Your task to perform on an android device: Open settings Image 0: 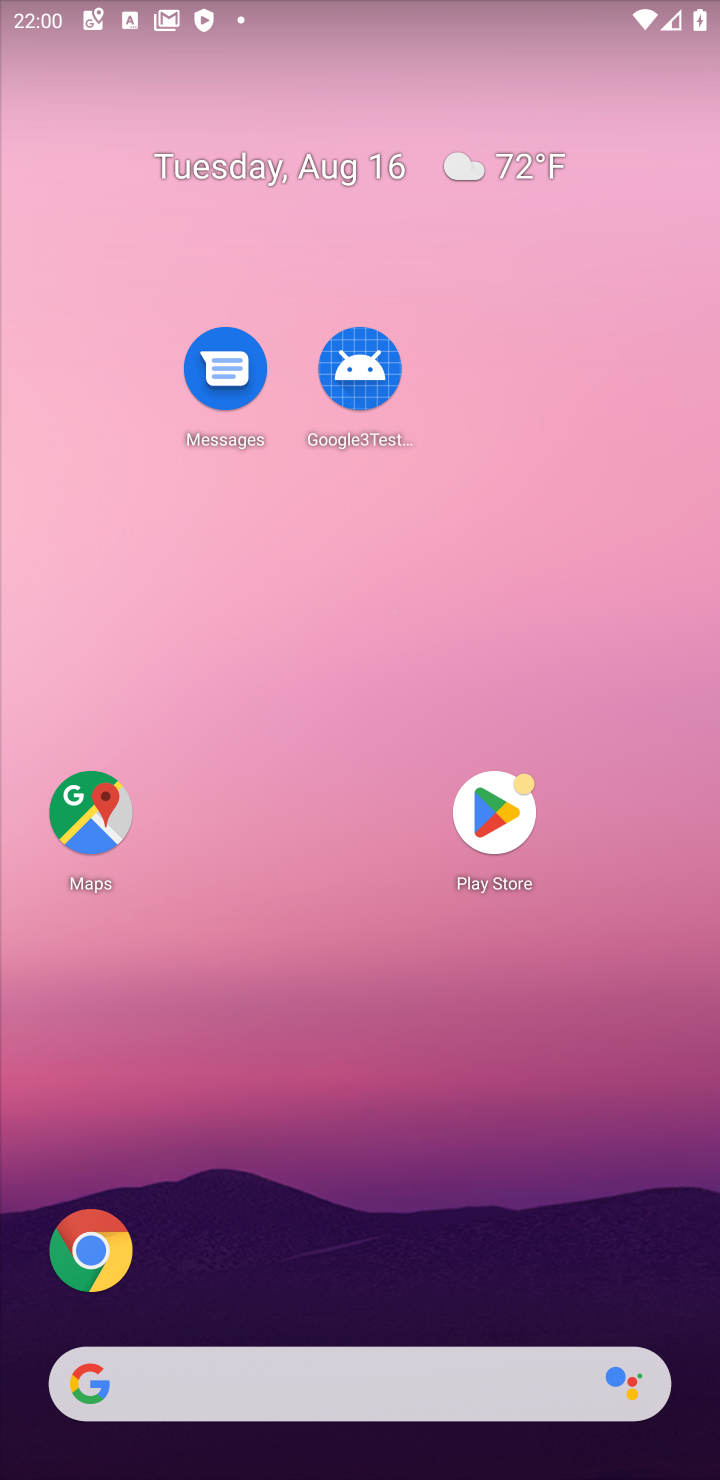
Step 0: drag from (424, 1263) to (391, 215)
Your task to perform on an android device: Open settings Image 1: 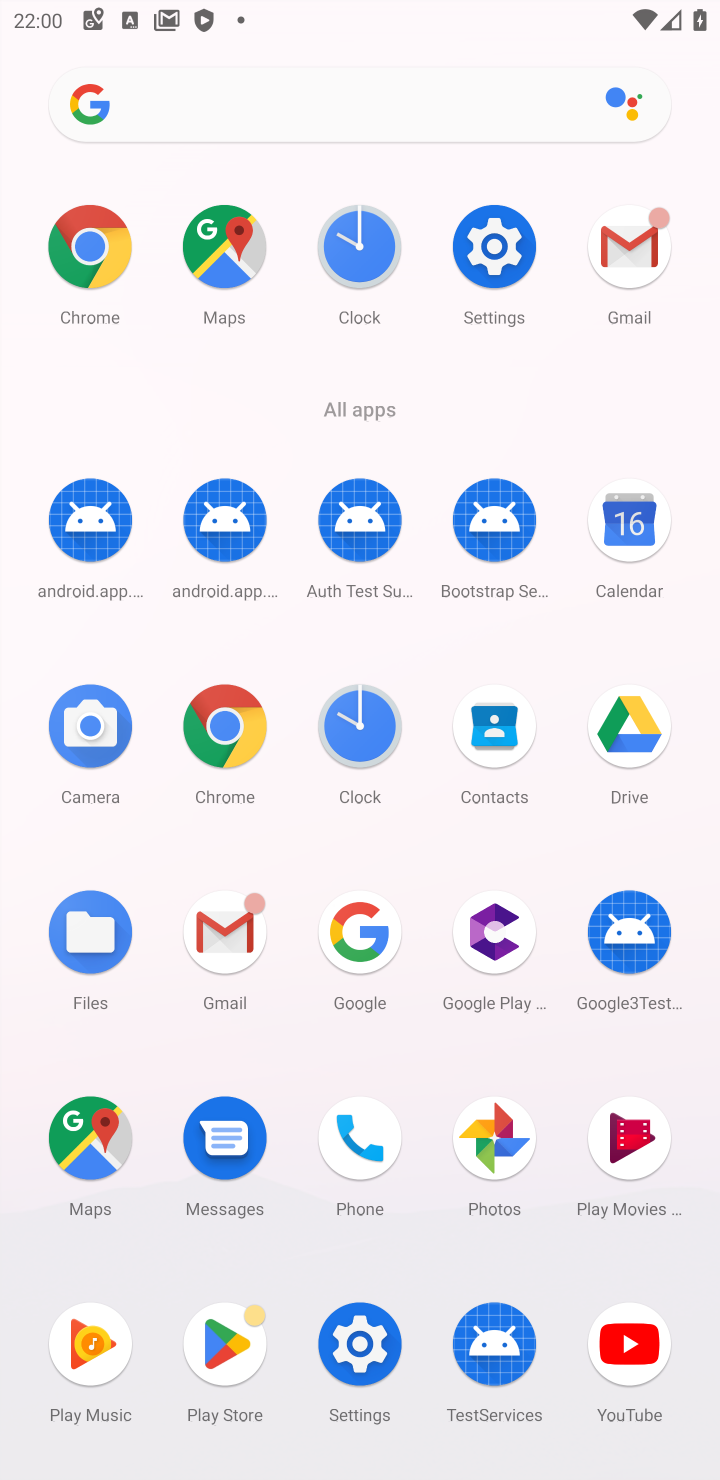
Step 1: click (481, 236)
Your task to perform on an android device: Open settings Image 2: 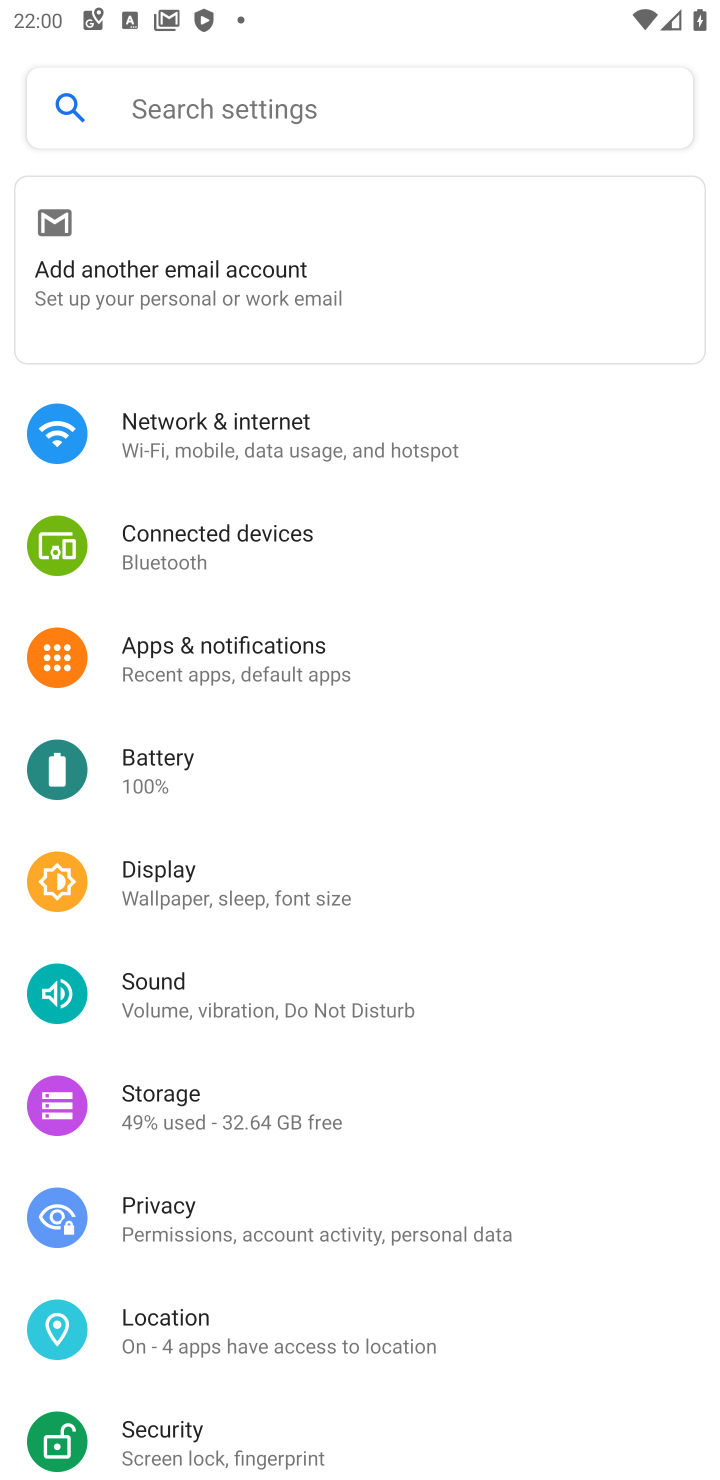
Step 2: task complete